Your task to perform on an android device: Add apple airpods pro to the cart on walmart.com Image 0: 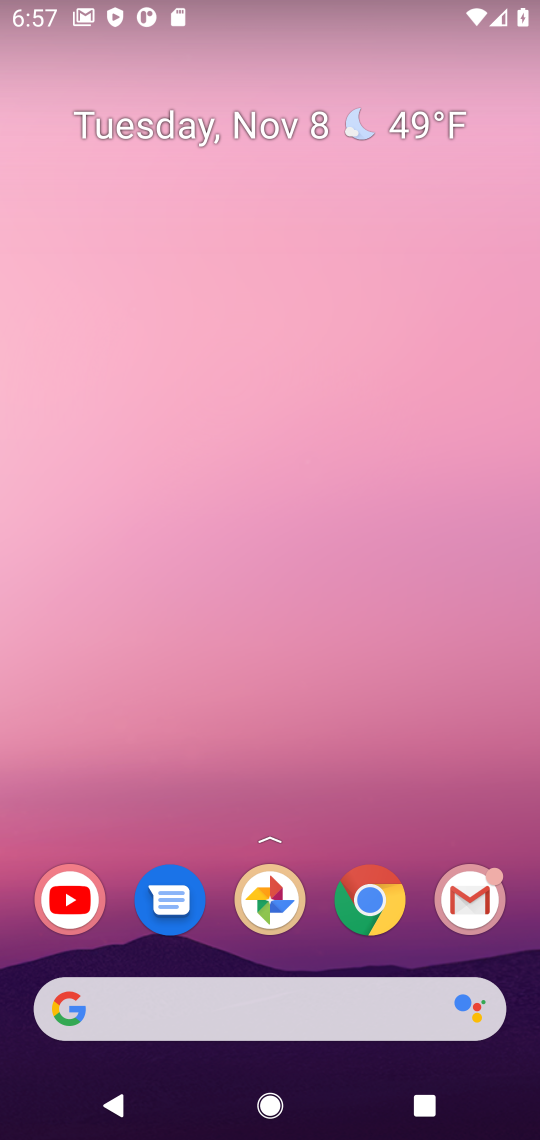
Step 0: click (385, 915)
Your task to perform on an android device: Add apple airpods pro to the cart on walmart.com Image 1: 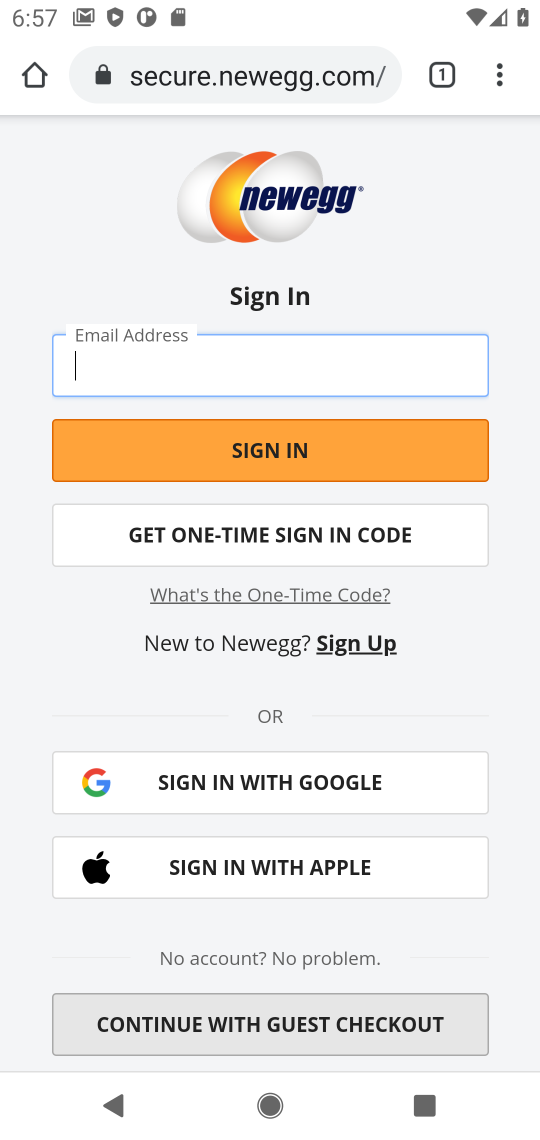
Step 1: click (199, 61)
Your task to perform on an android device: Add apple airpods pro to the cart on walmart.com Image 2: 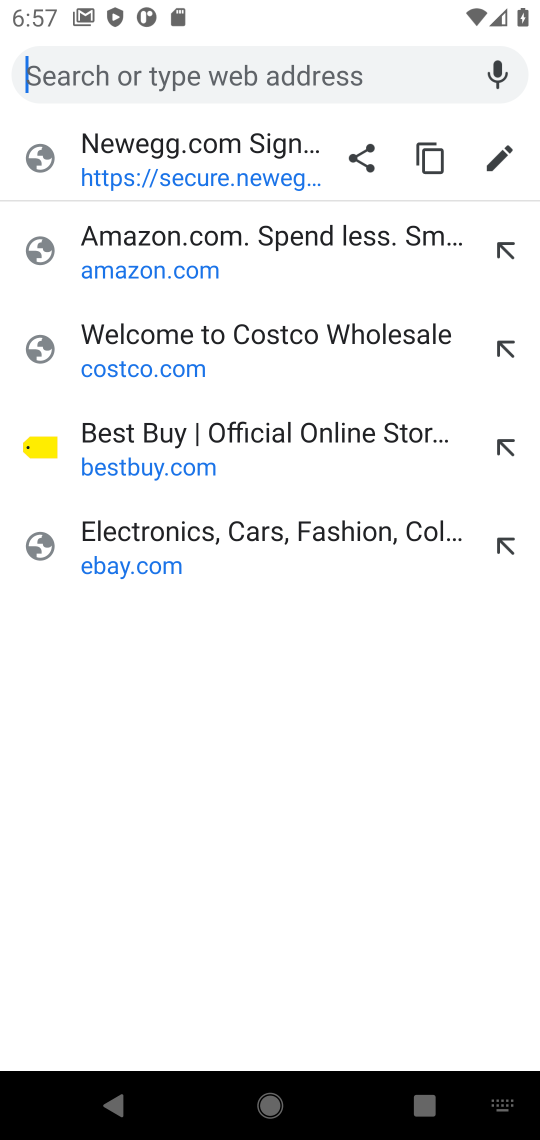
Step 2: type "walmart.com"
Your task to perform on an android device: Add apple airpods pro to the cart on walmart.com Image 3: 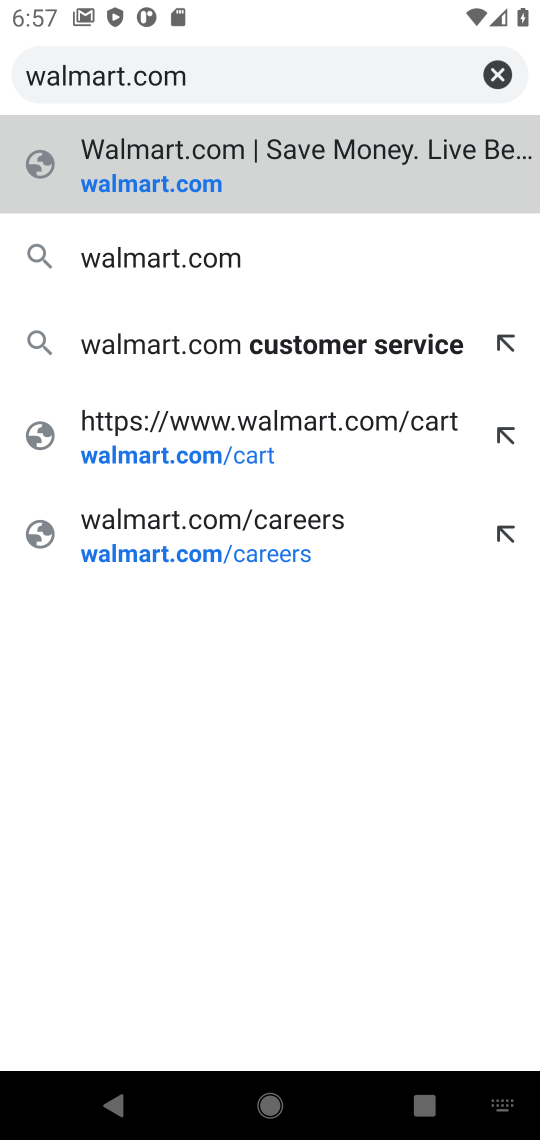
Step 3: type ""
Your task to perform on an android device: Add apple airpods pro to the cart on walmart.com Image 4: 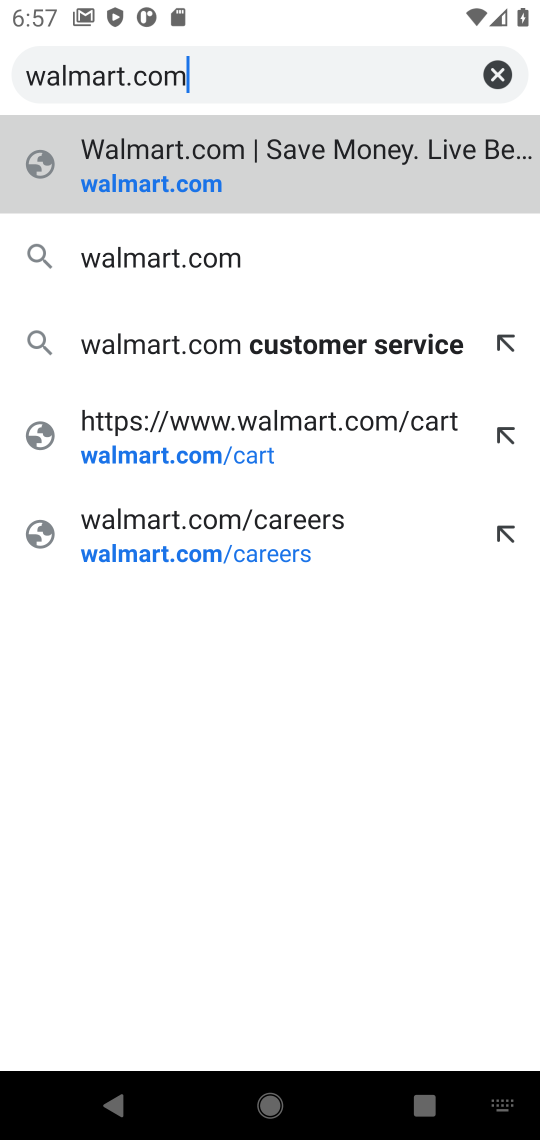
Step 4: press enter
Your task to perform on an android device: Add apple airpods pro to the cart on walmart.com Image 5: 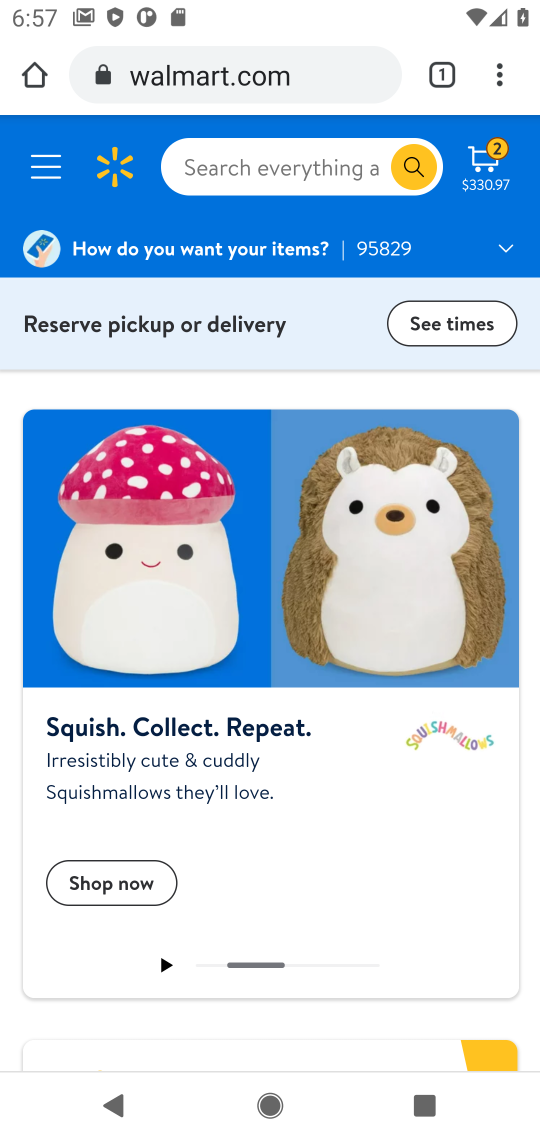
Step 5: click (309, 153)
Your task to perform on an android device: Add apple airpods pro to the cart on walmart.com Image 6: 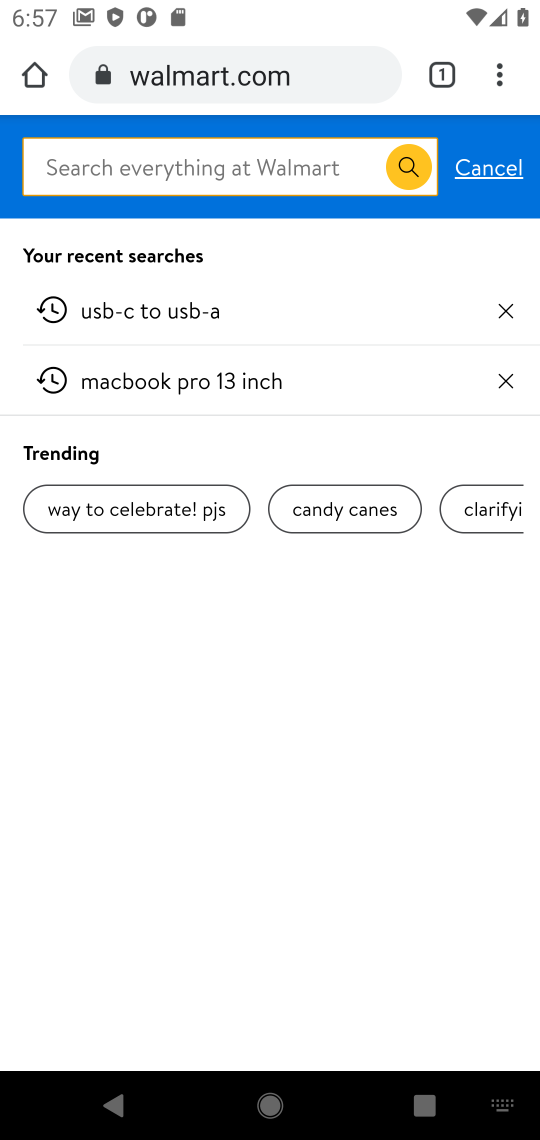
Step 6: type "apple airpods pro"
Your task to perform on an android device: Add apple airpods pro to the cart on walmart.com Image 7: 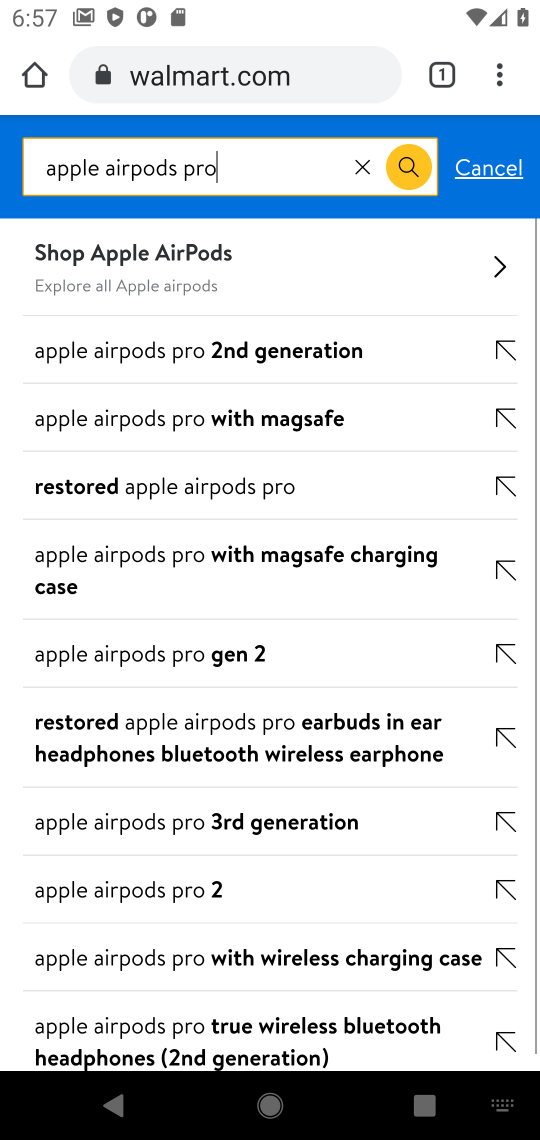
Step 7: type ""
Your task to perform on an android device: Add apple airpods pro to the cart on walmart.com Image 8: 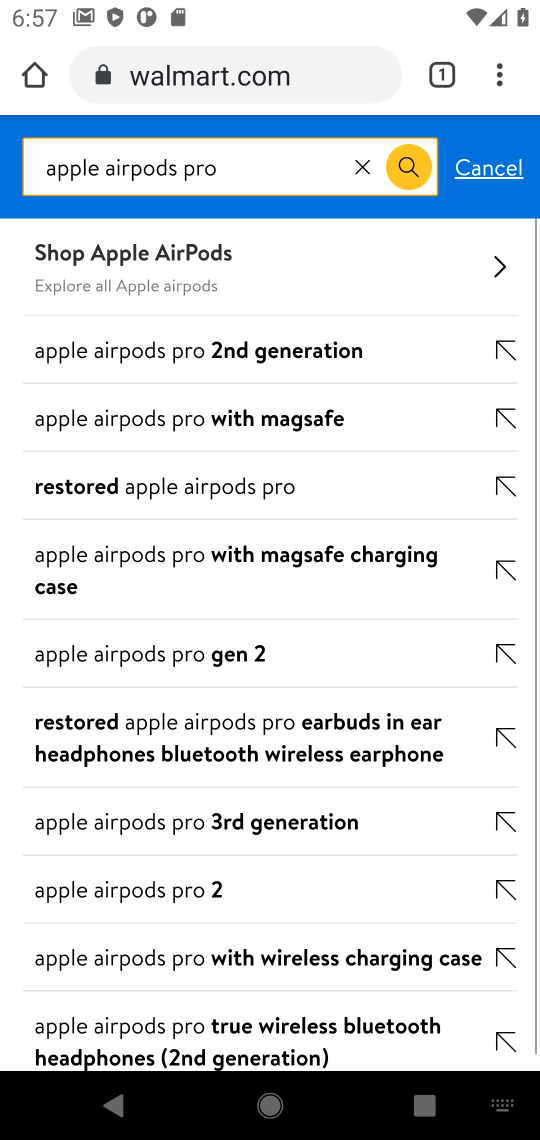
Step 8: press enter
Your task to perform on an android device: Add apple airpods pro to the cart on walmart.com Image 9: 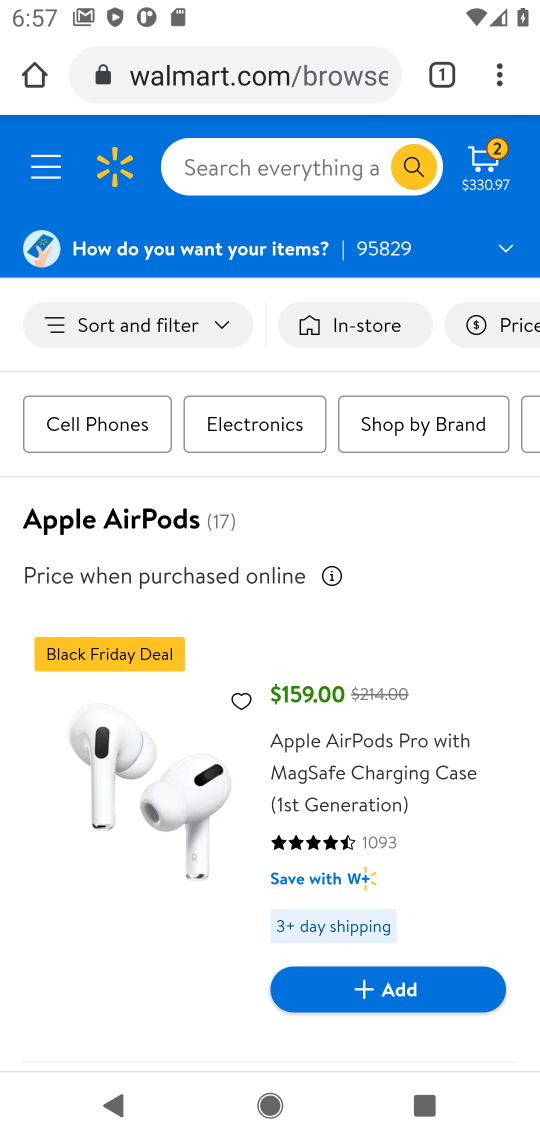
Step 9: click (375, 989)
Your task to perform on an android device: Add apple airpods pro to the cart on walmart.com Image 10: 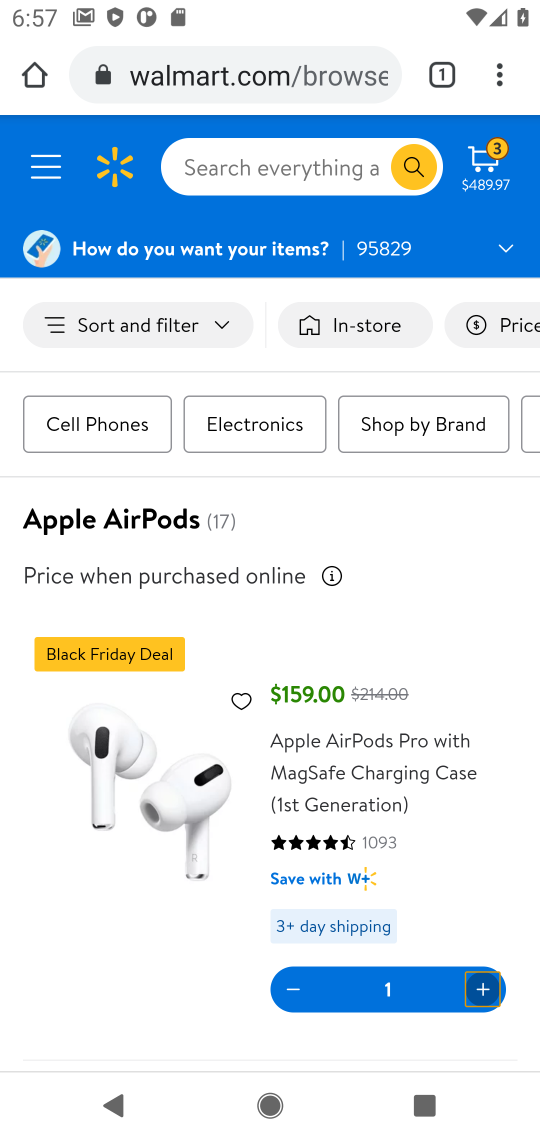
Step 10: task complete